Your task to perform on an android device: Open calendar and show me the first week of next month Image 0: 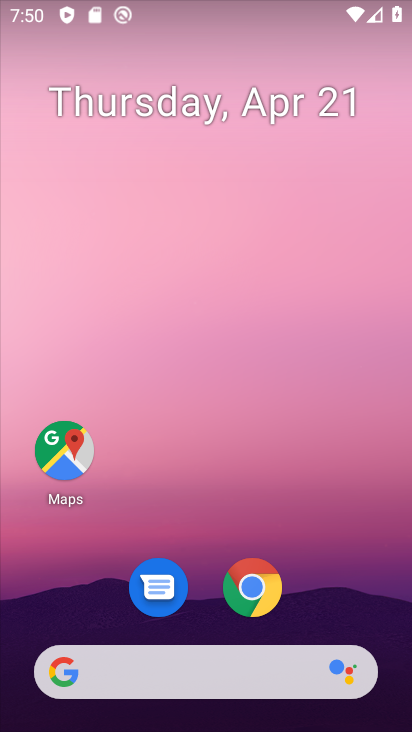
Step 0: drag from (338, 613) to (341, 56)
Your task to perform on an android device: Open calendar and show me the first week of next month Image 1: 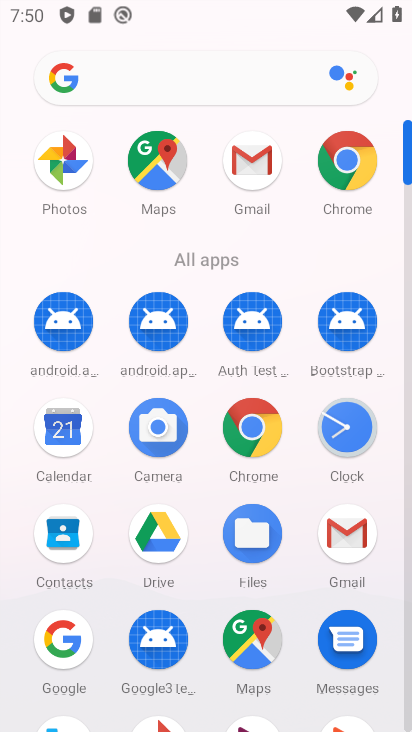
Step 1: click (75, 451)
Your task to perform on an android device: Open calendar and show me the first week of next month Image 2: 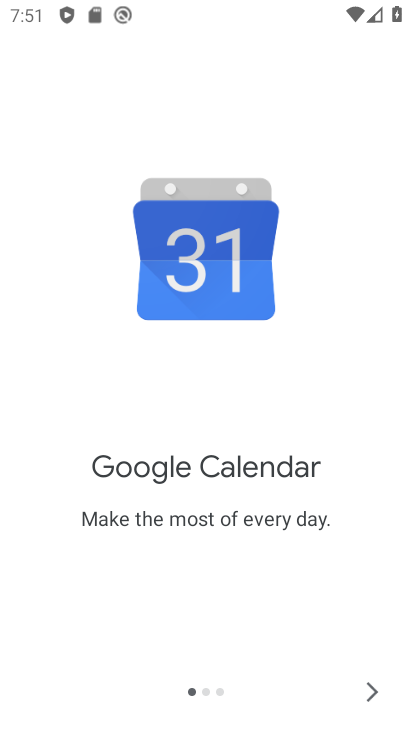
Step 2: click (367, 690)
Your task to perform on an android device: Open calendar and show me the first week of next month Image 3: 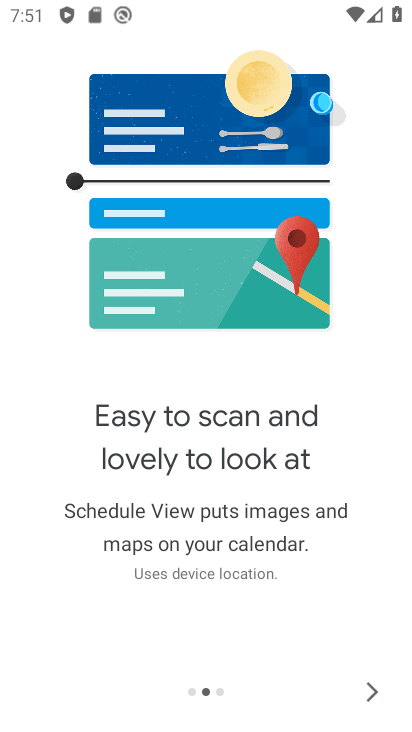
Step 3: click (370, 696)
Your task to perform on an android device: Open calendar and show me the first week of next month Image 4: 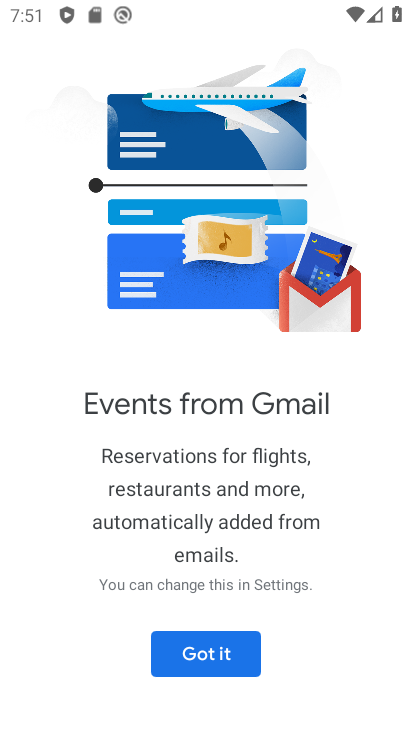
Step 4: click (223, 652)
Your task to perform on an android device: Open calendar and show me the first week of next month Image 5: 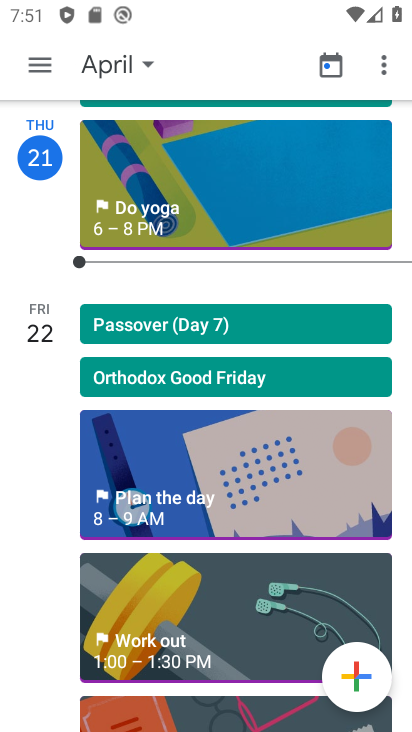
Step 5: click (149, 53)
Your task to perform on an android device: Open calendar and show me the first week of next month Image 6: 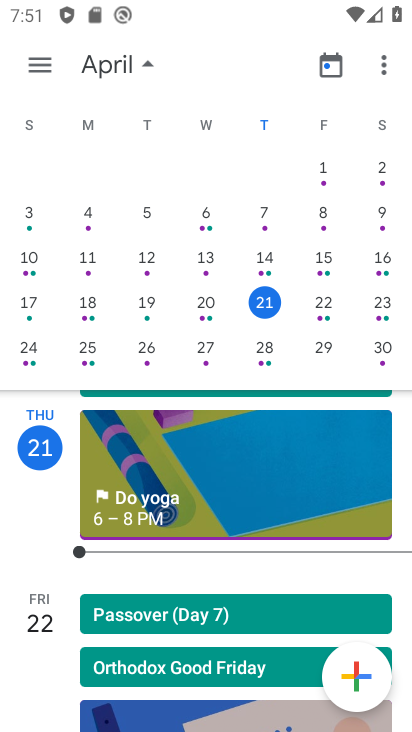
Step 6: task complete